Your task to perform on an android device: Open Android settings Image 0: 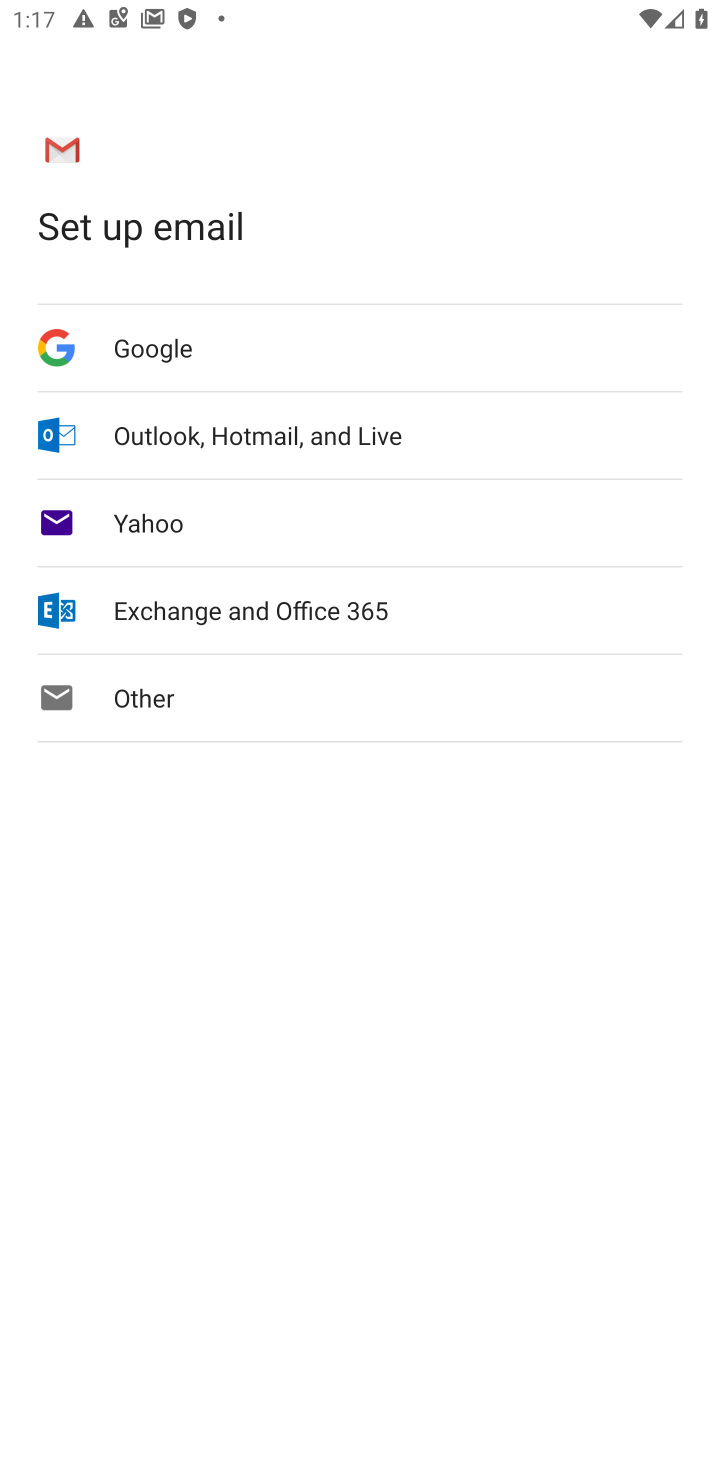
Step 0: press home button
Your task to perform on an android device: Open Android settings Image 1: 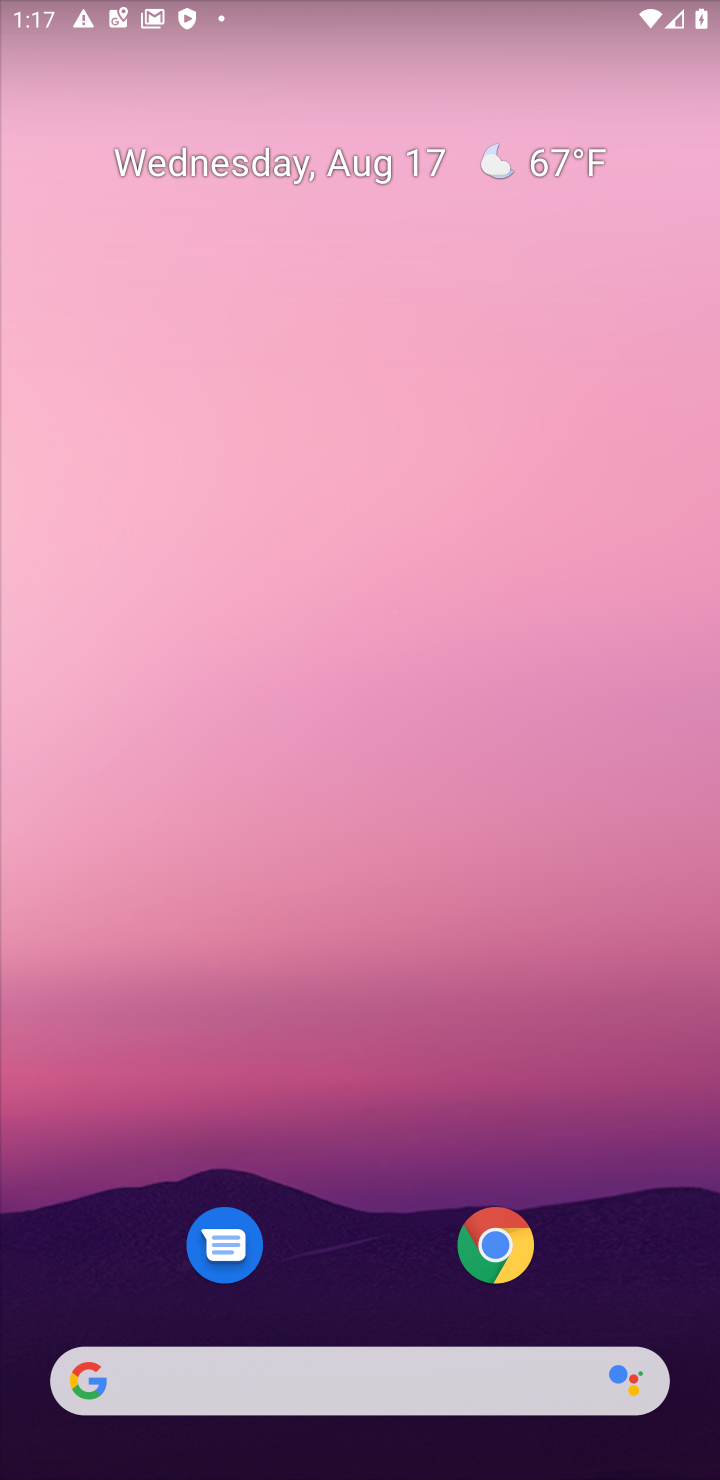
Step 1: drag from (386, 1337) to (364, 212)
Your task to perform on an android device: Open Android settings Image 2: 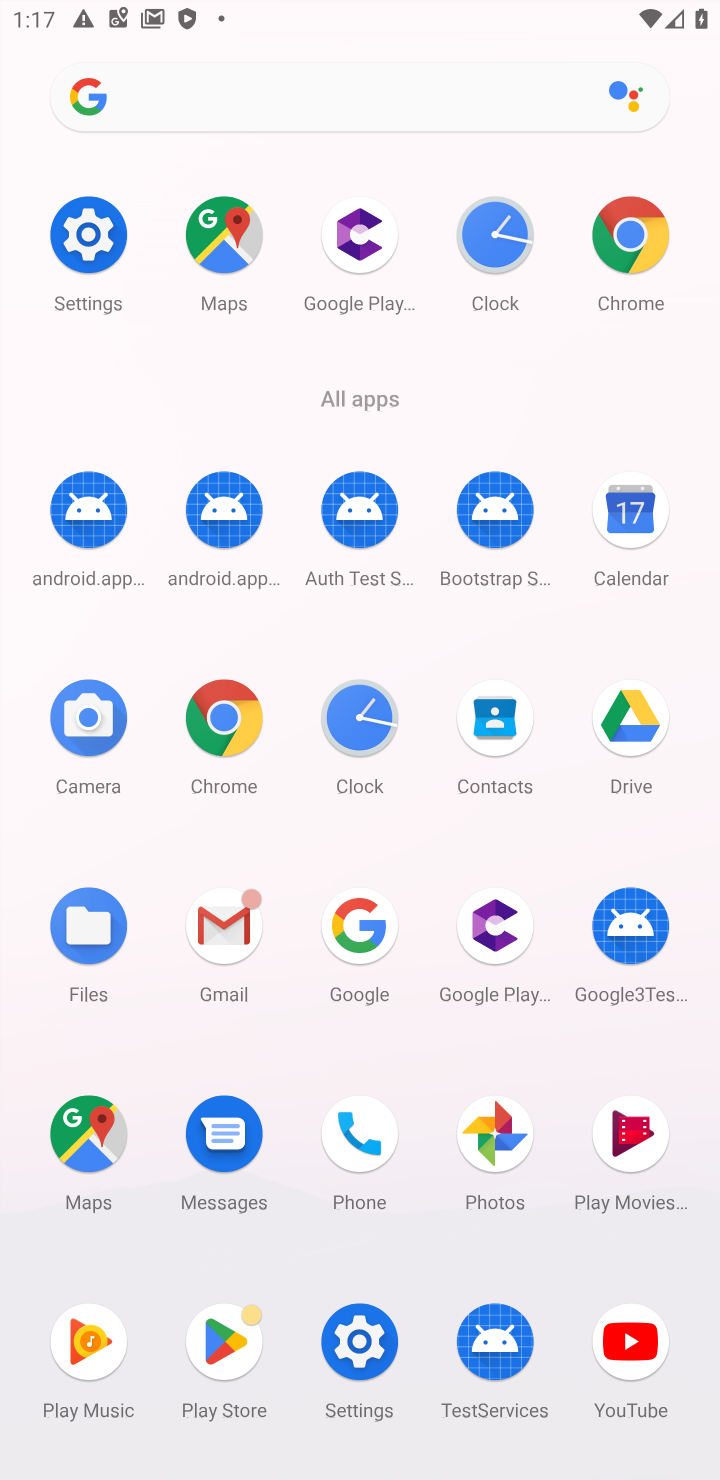
Step 2: click (367, 1349)
Your task to perform on an android device: Open Android settings Image 3: 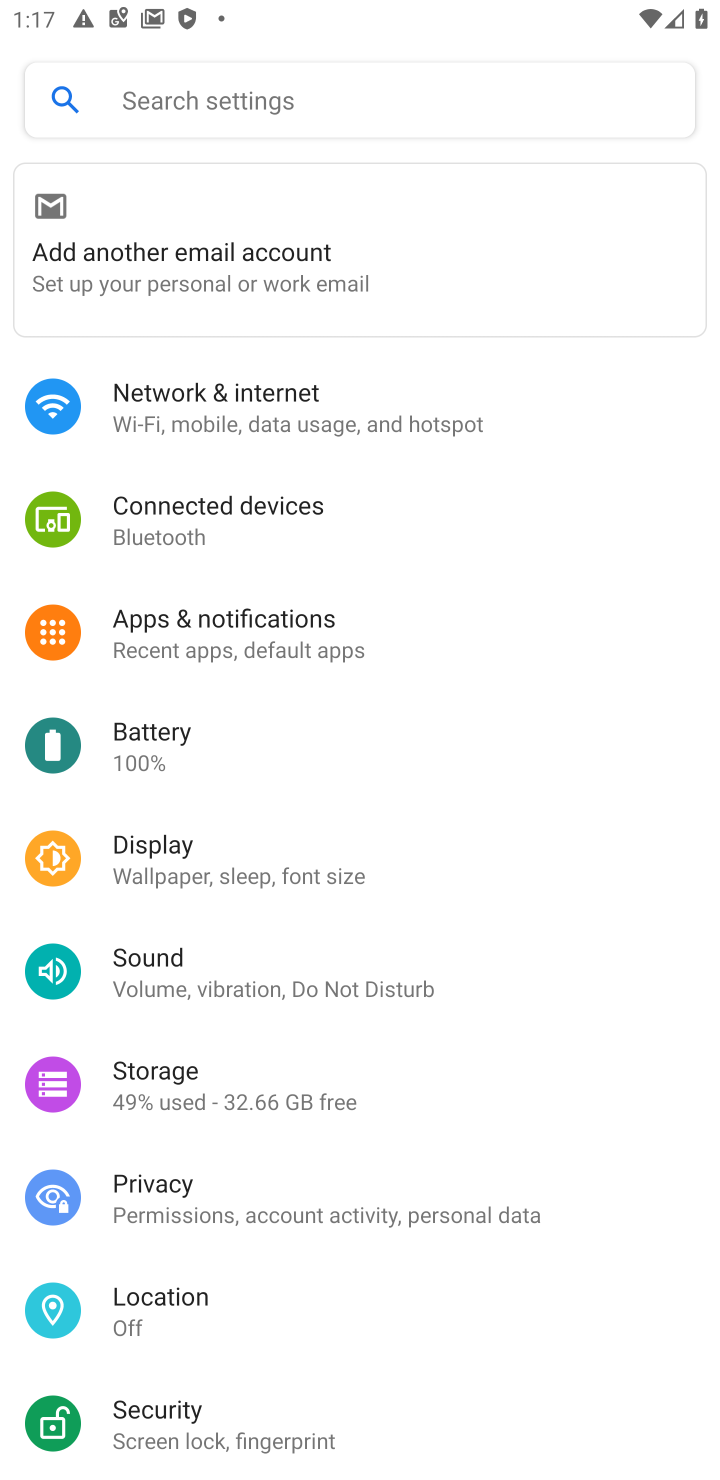
Step 3: task complete